Your task to perform on an android device: uninstall "eBay: The shopping marketplace" Image 0: 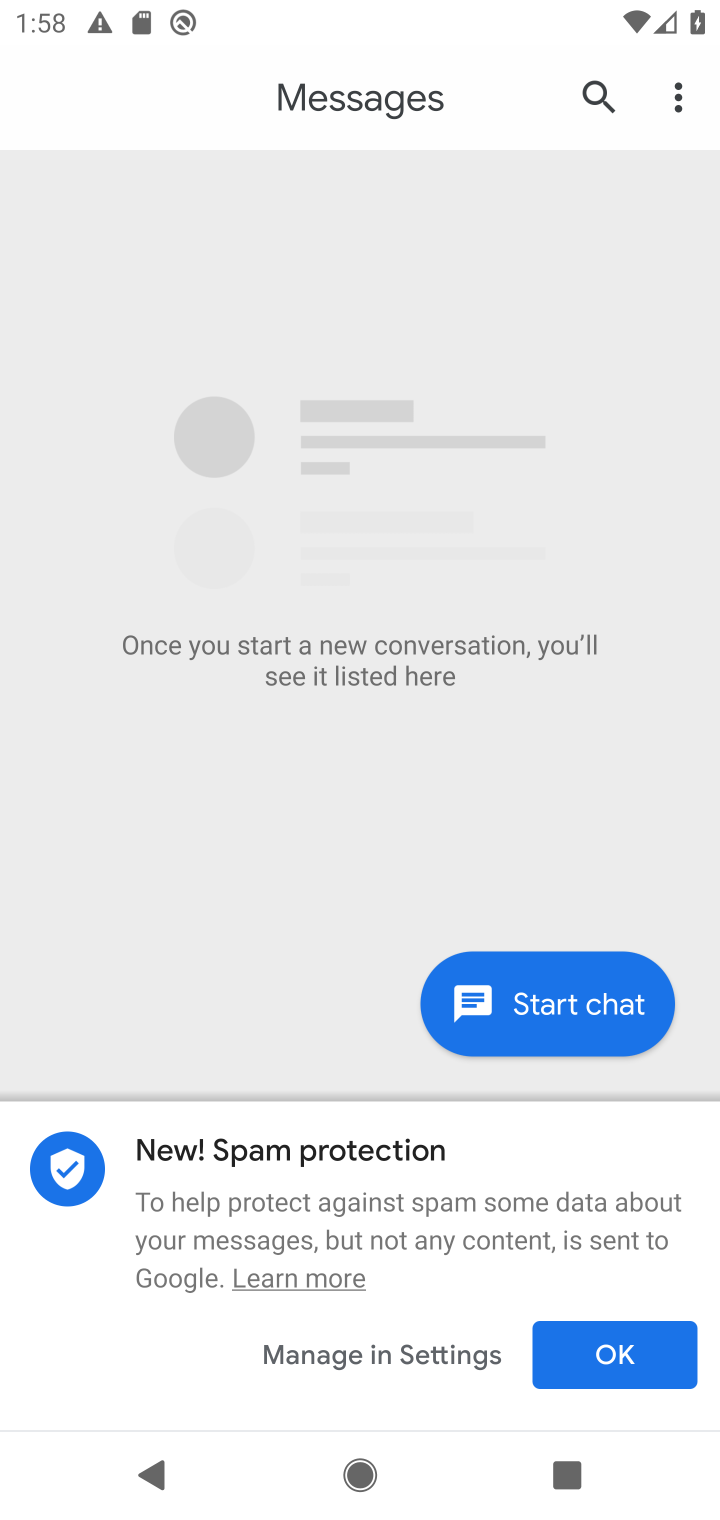
Step 0: press home button
Your task to perform on an android device: uninstall "eBay: The shopping marketplace" Image 1: 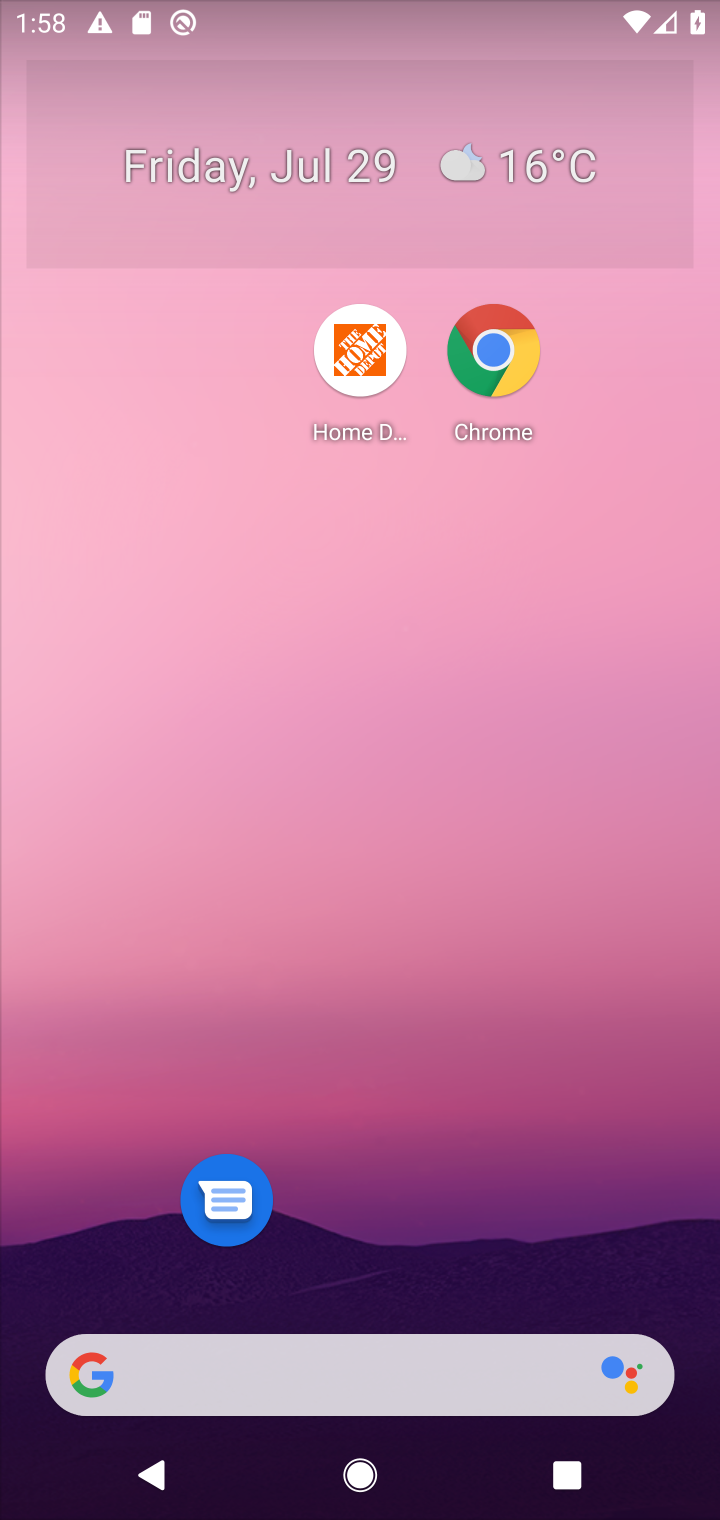
Step 1: drag from (480, 800) to (454, 265)
Your task to perform on an android device: uninstall "eBay: The shopping marketplace" Image 2: 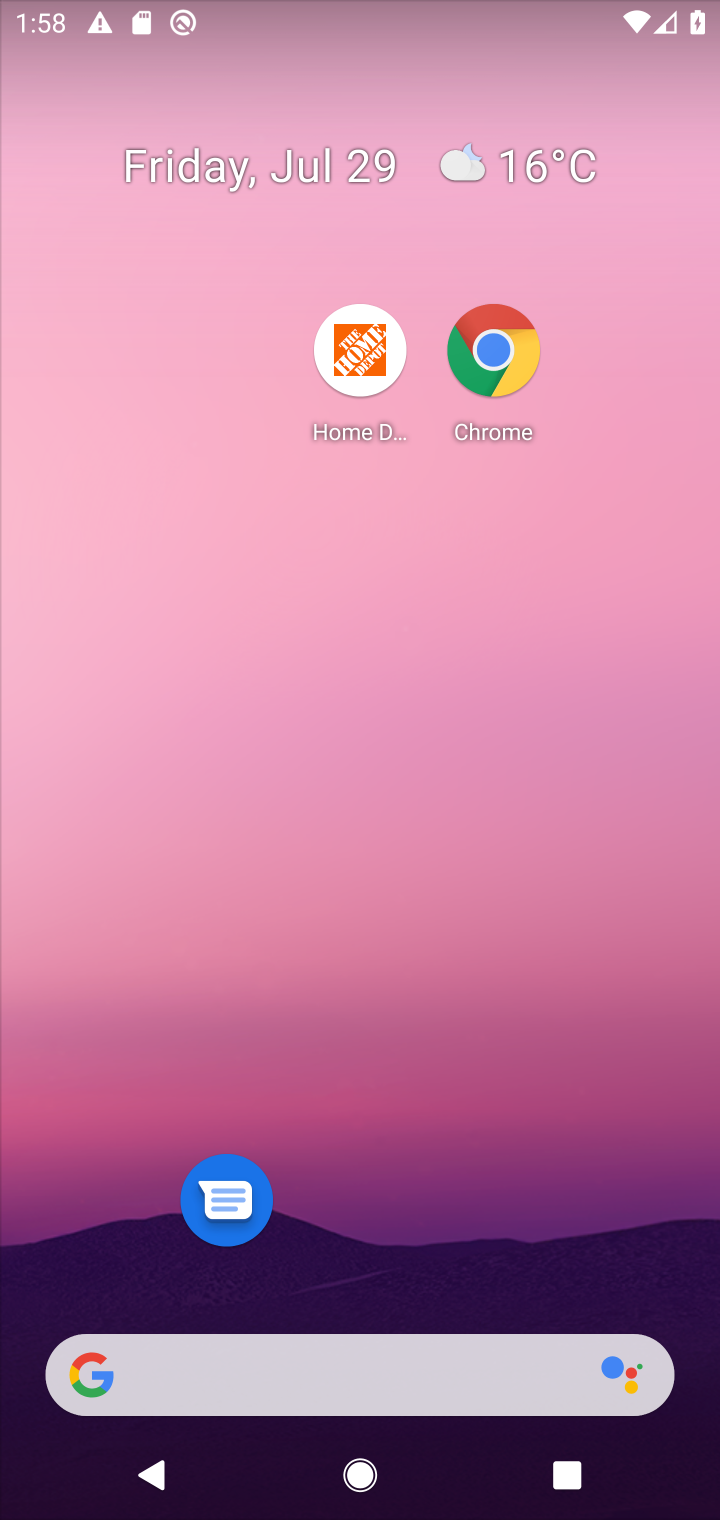
Step 2: drag from (415, 844) to (393, 148)
Your task to perform on an android device: uninstall "eBay: The shopping marketplace" Image 3: 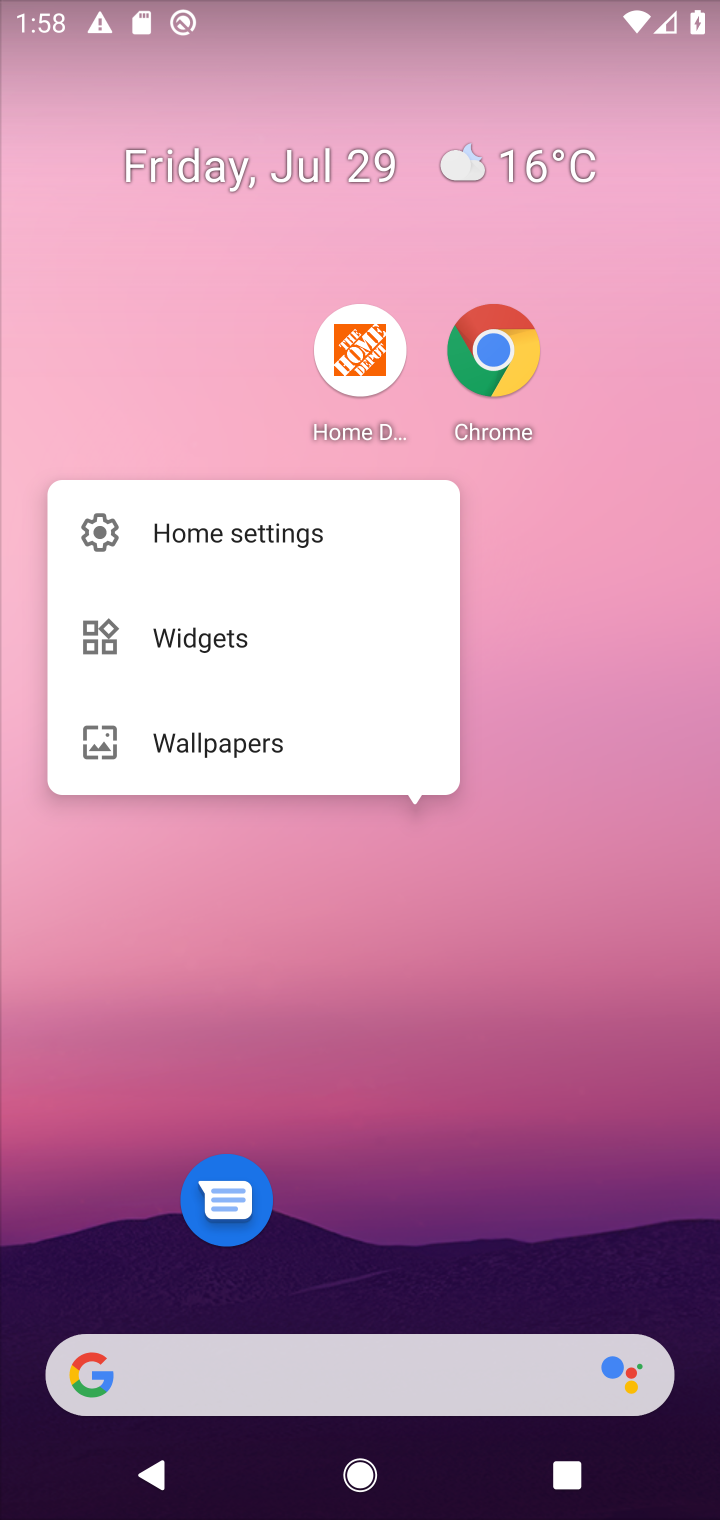
Step 3: click (546, 978)
Your task to perform on an android device: uninstall "eBay: The shopping marketplace" Image 4: 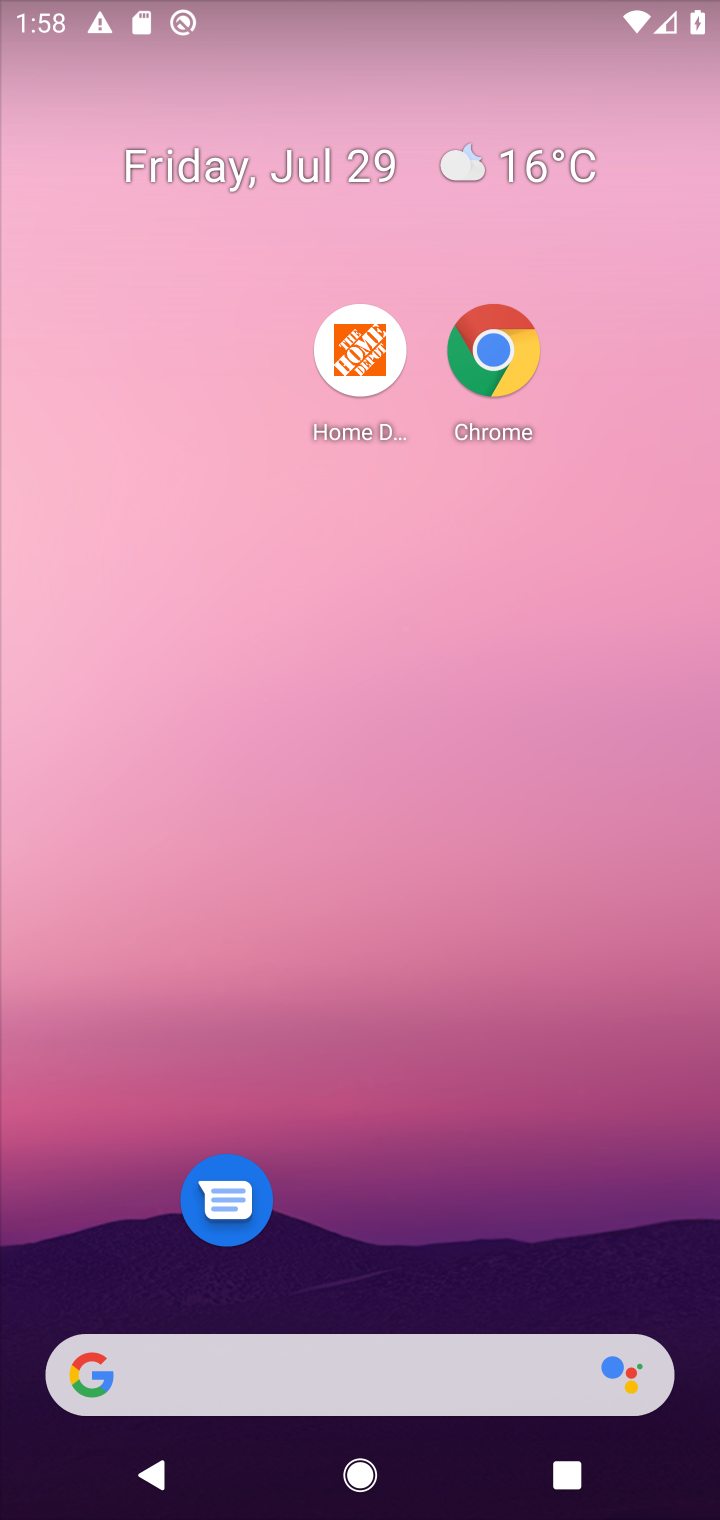
Step 4: drag from (538, 1170) to (439, 170)
Your task to perform on an android device: uninstall "eBay: The shopping marketplace" Image 5: 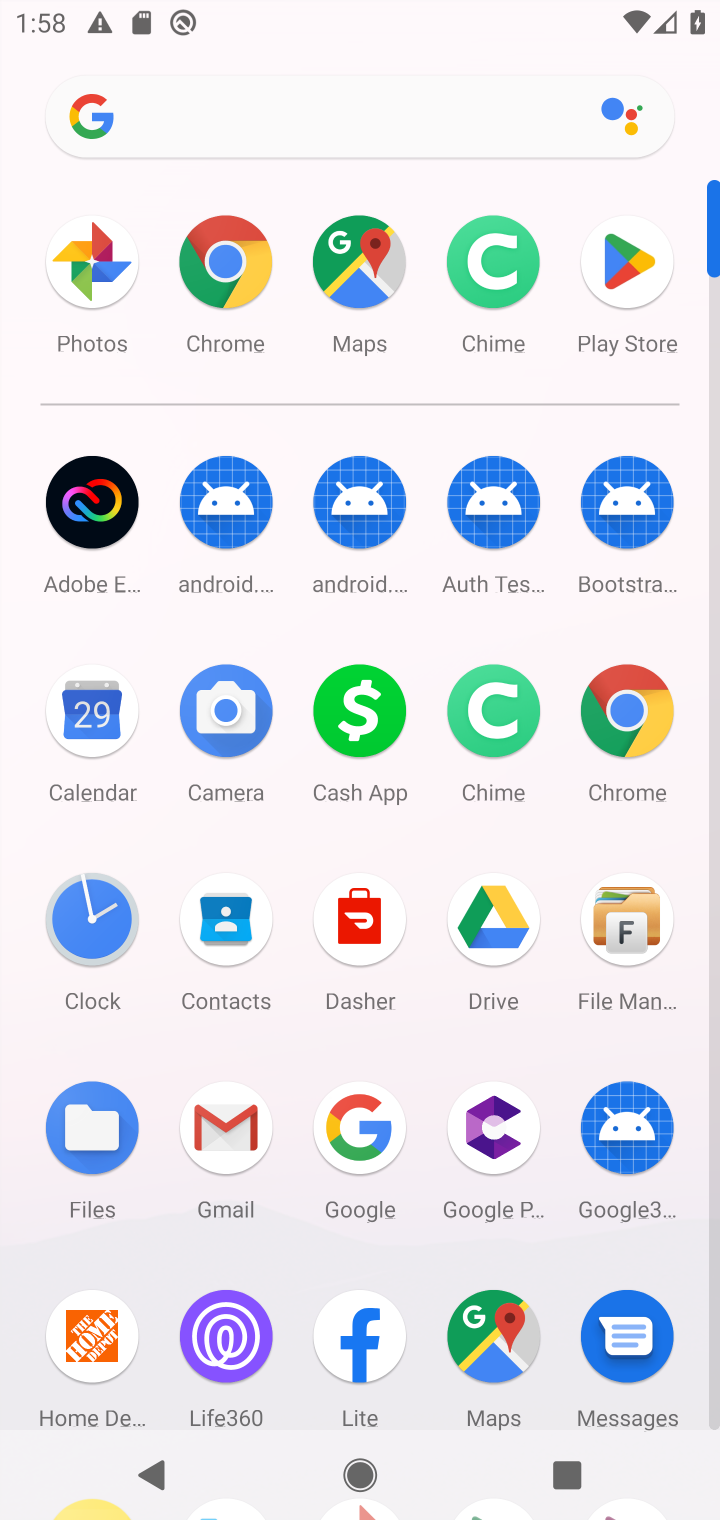
Step 5: click (636, 257)
Your task to perform on an android device: uninstall "eBay: The shopping marketplace" Image 6: 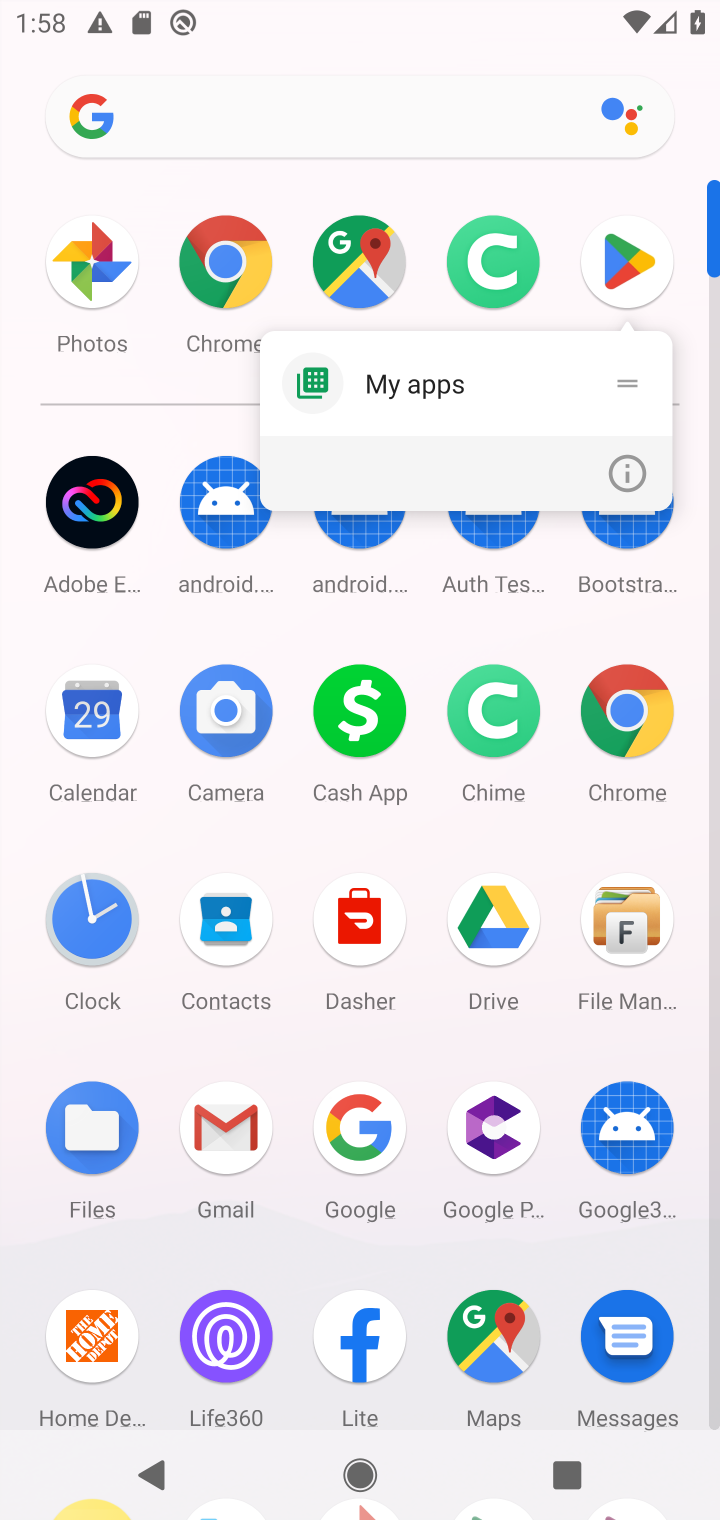
Step 6: click (608, 268)
Your task to perform on an android device: uninstall "eBay: The shopping marketplace" Image 7: 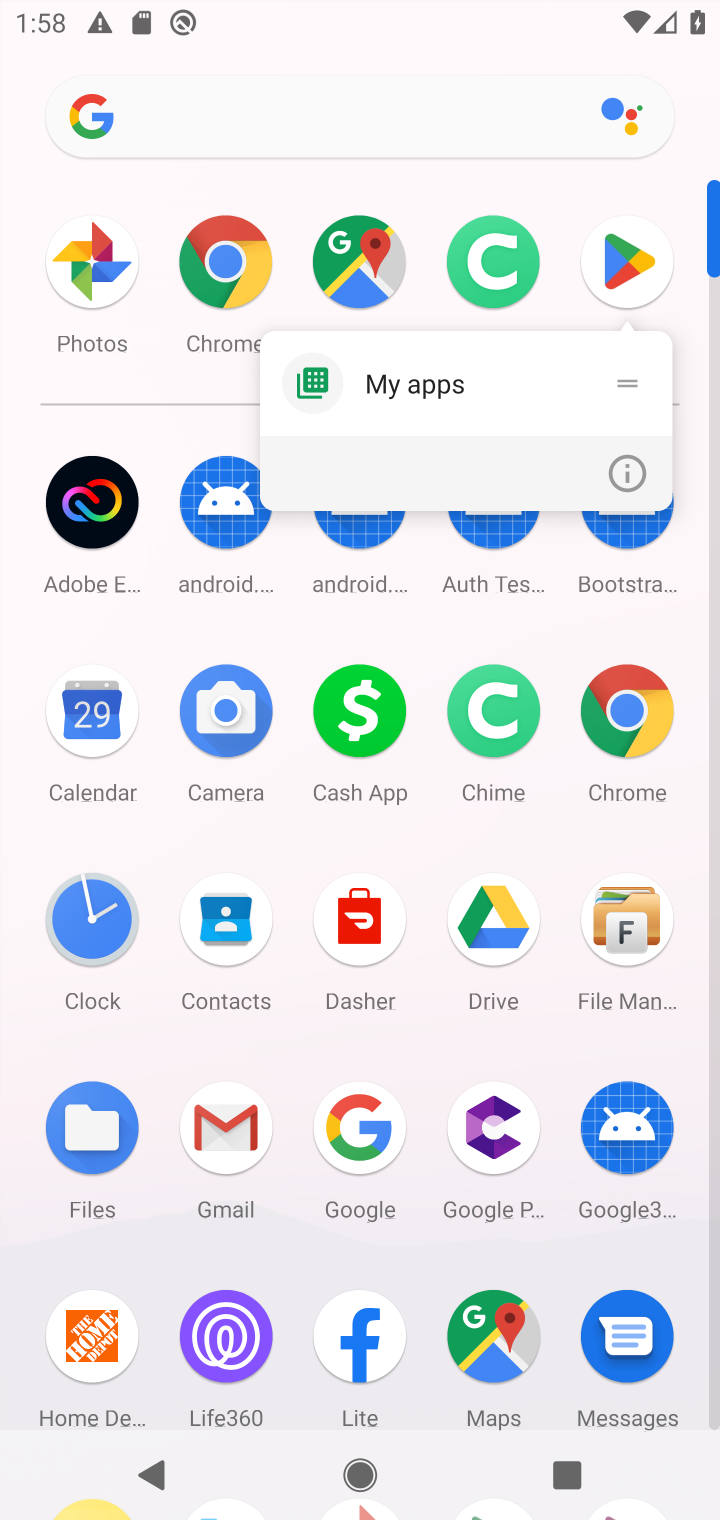
Step 7: click (616, 266)
Your task to perform on an android device: uninstall "eBay: The shopping marketplace" Image 8: 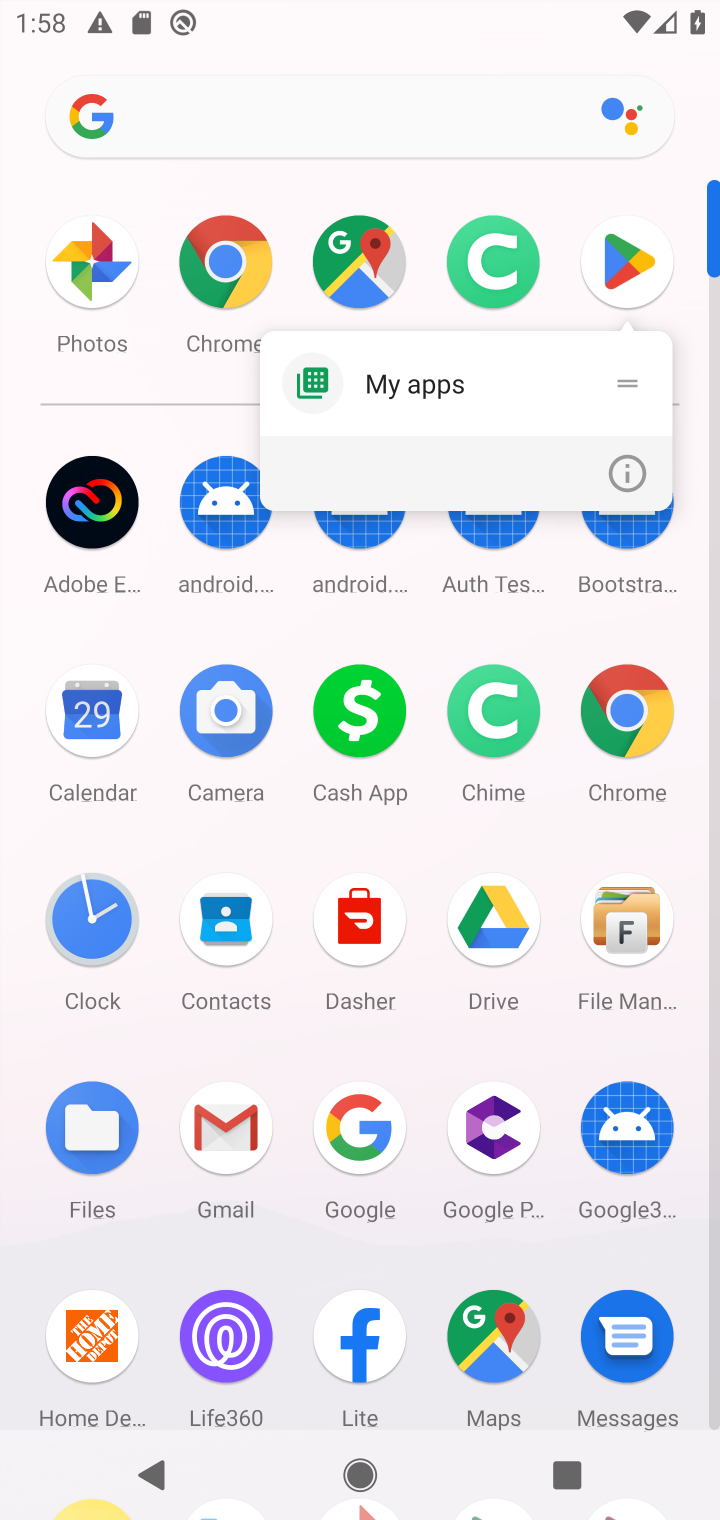
Step 8: click (625, 266)
Your task to perform on an android device: uninstall "eBay: The shopping marketplace" Image 9: 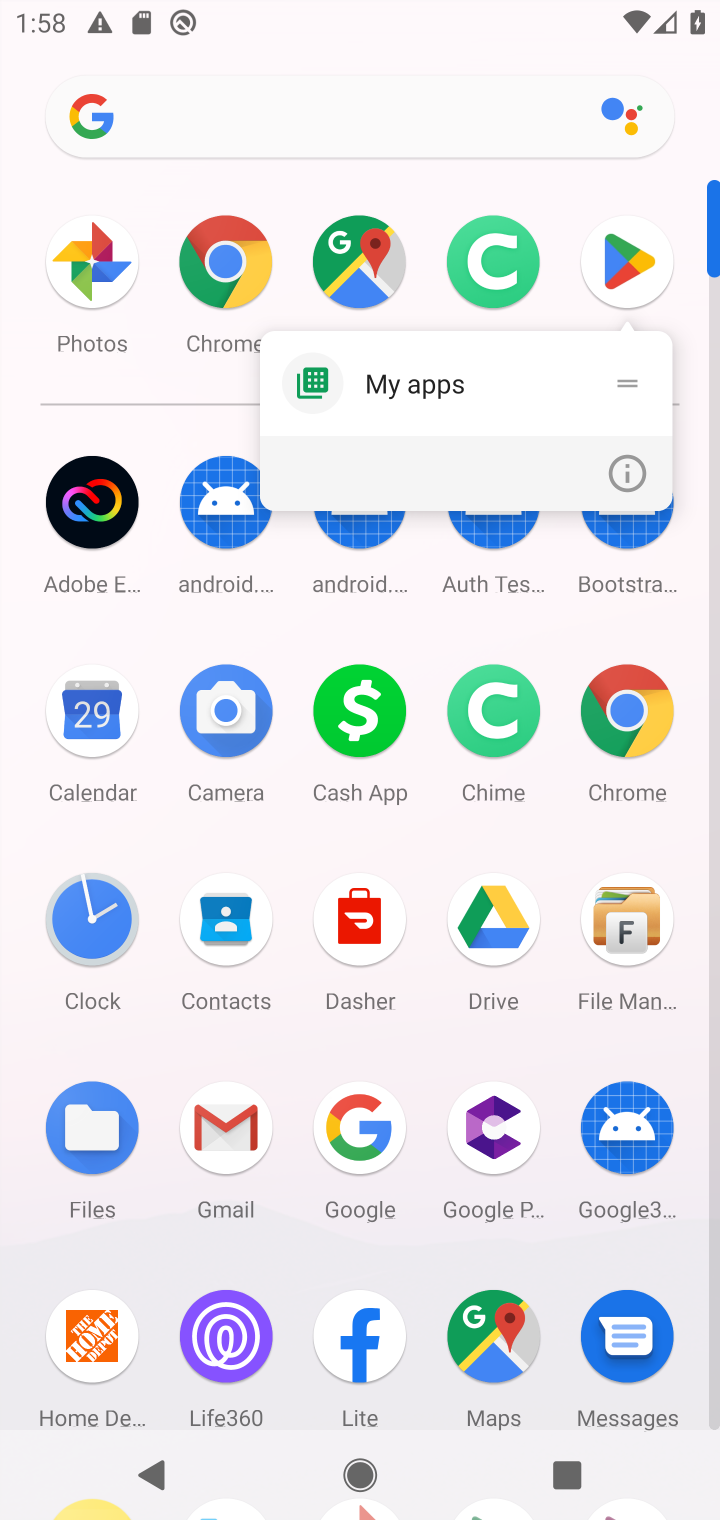
Step 9: click (629, 258)
Your task to perform on an android device: uninstall "eBay: The shopping marketplace" Image 10: 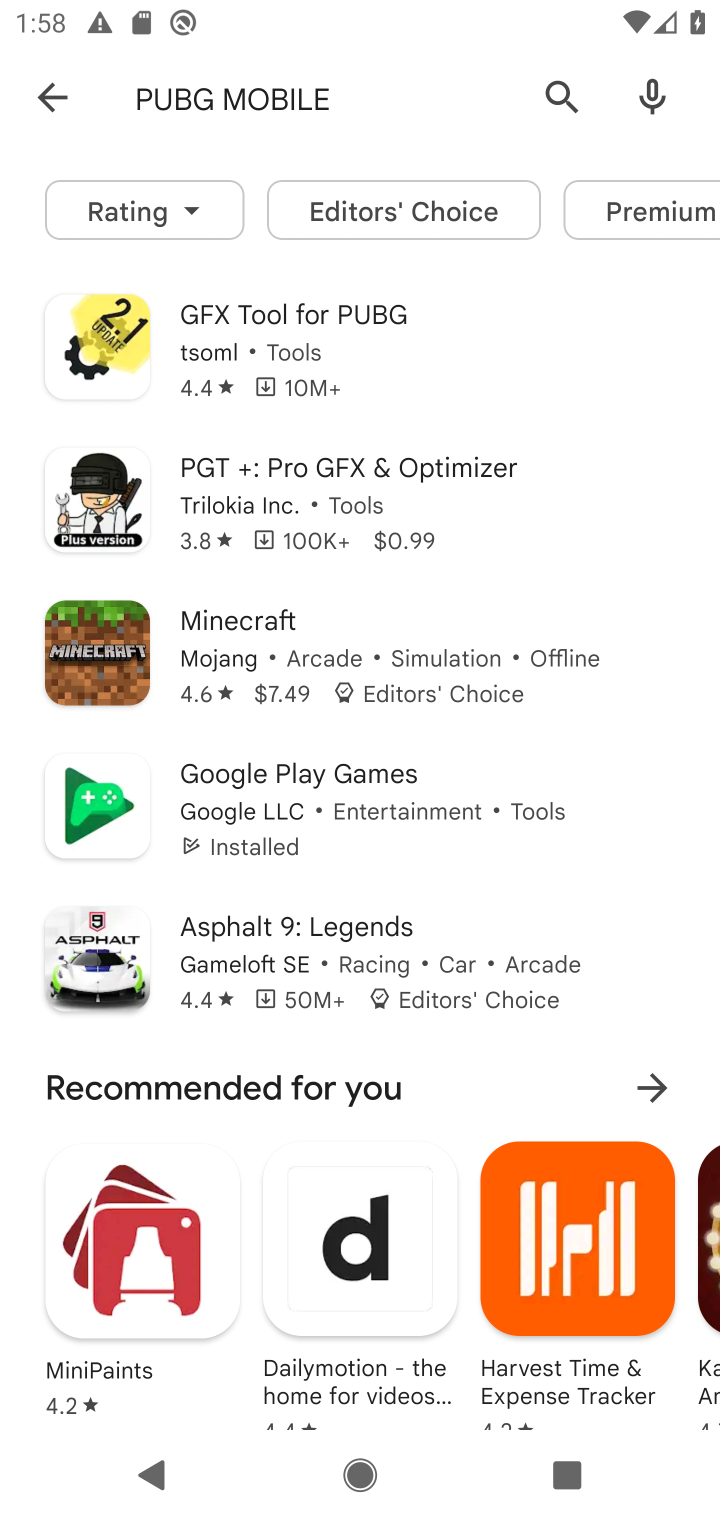
Step 10: click (343, 91)
Your task to perform on an android device: uninstall "eBay: The shopping marketplace" Image 11: 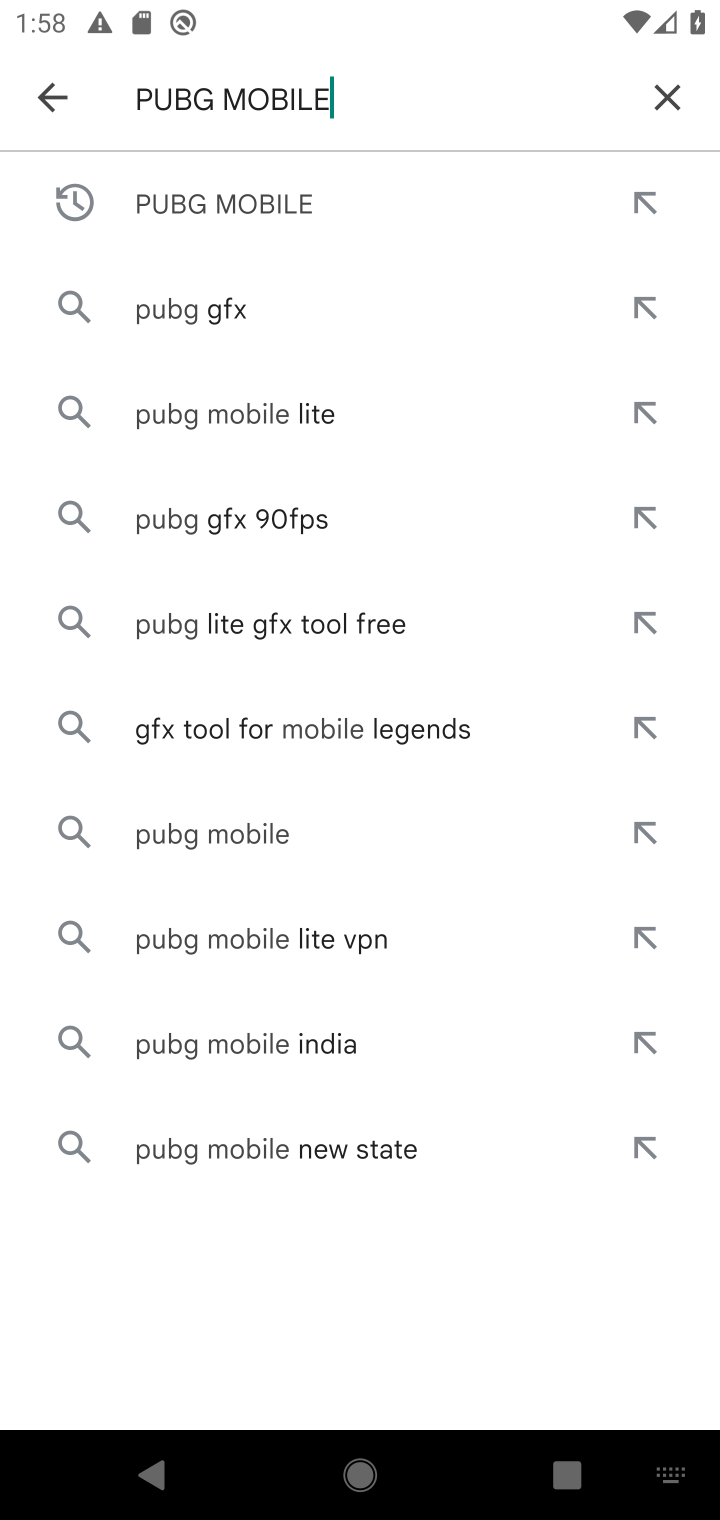
Step 11: click (662, 91)
Your task to perform on an android device: uninstall "eBay: The shopping marketplace" Image 12: 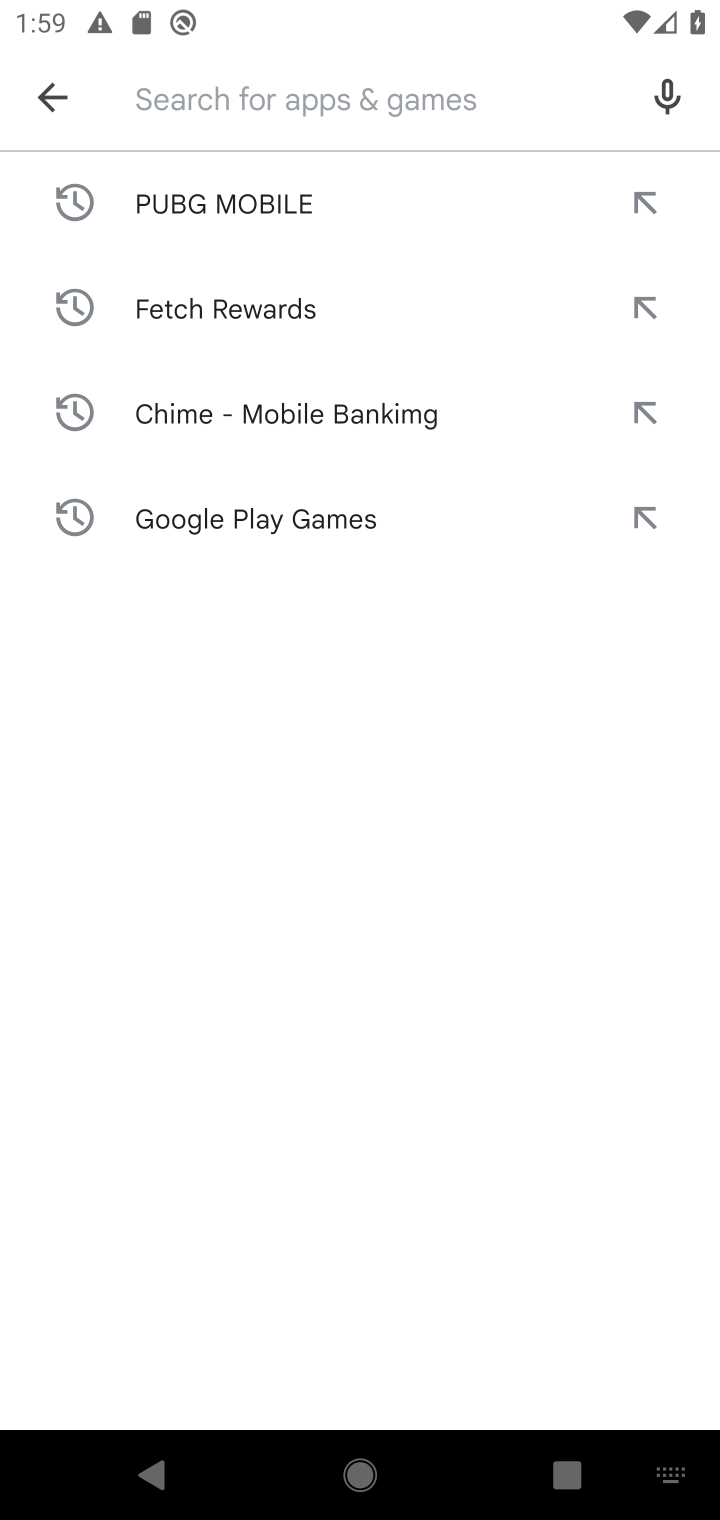
Step 12: type "eBay: shopping marketplace"
Your task to perform on an android device: uninstall "eBay: The shopping marketplace" Image 13: 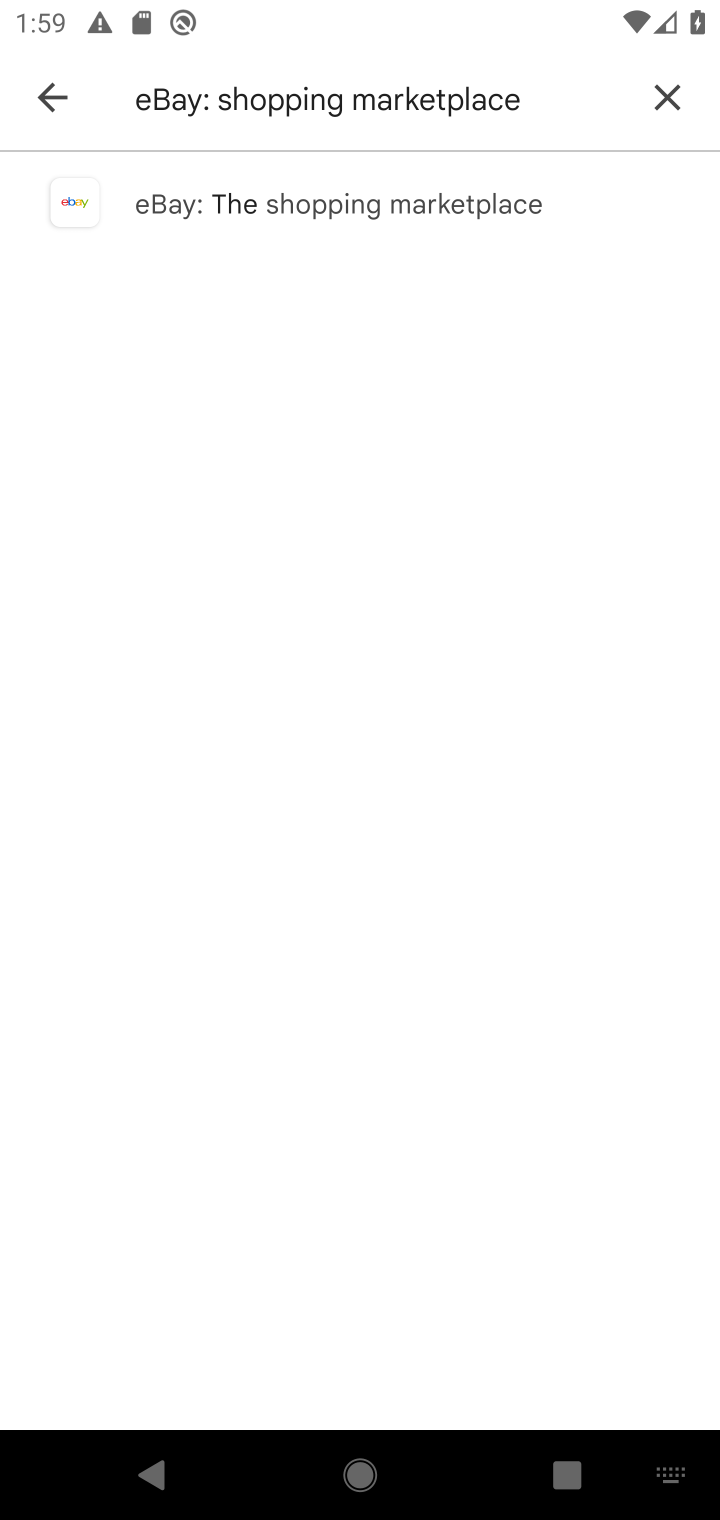
Step 13: press enter
Your task to perform on an android device: uninstall "eBay: The shopping marketplace" Image 14: 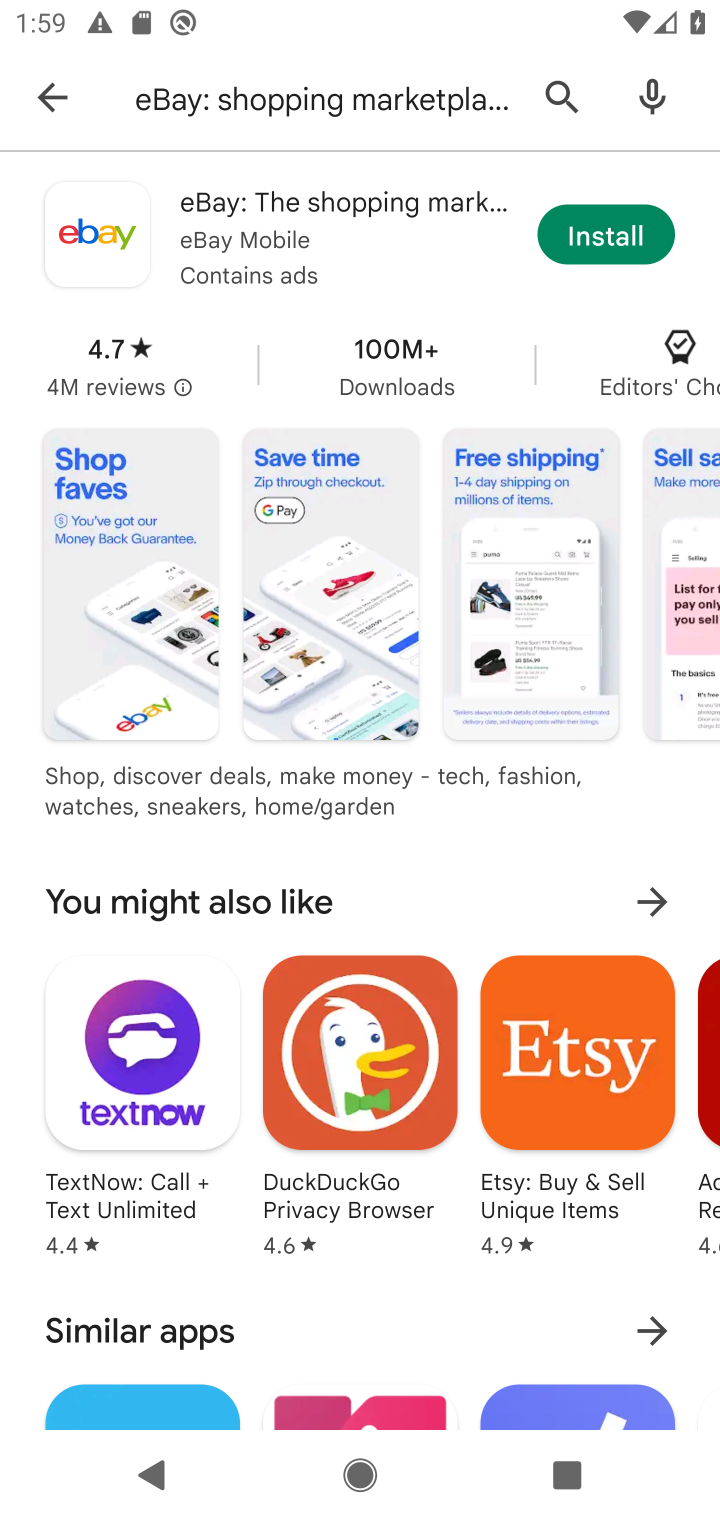
Step 14: click (365, 229)
Your task to perform on an android device: uninstall "eBay: The shopping marketplace" Image 15: 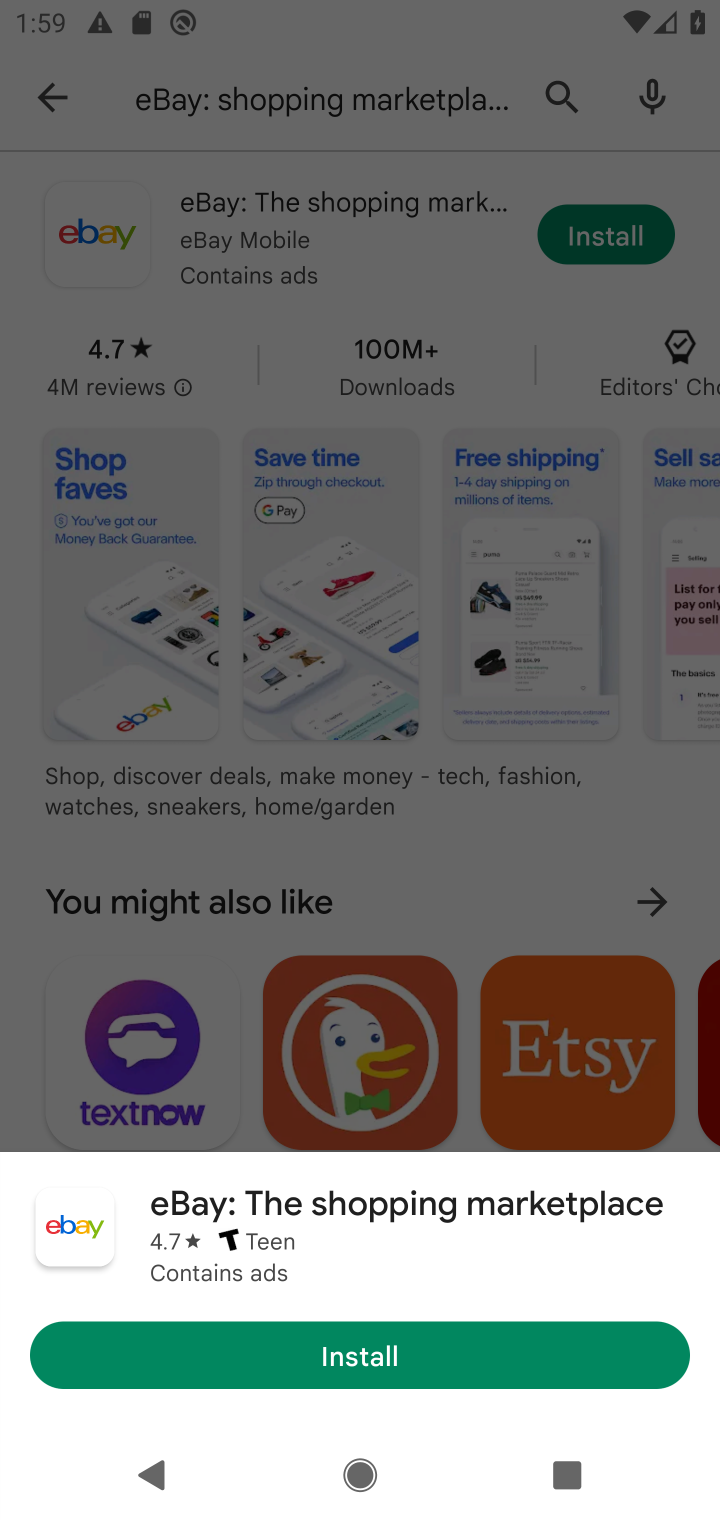
Step 15: click (396, 223)
Your task to perform on an android device: uninstall "eBay: The shopping marketplace" Image 16: 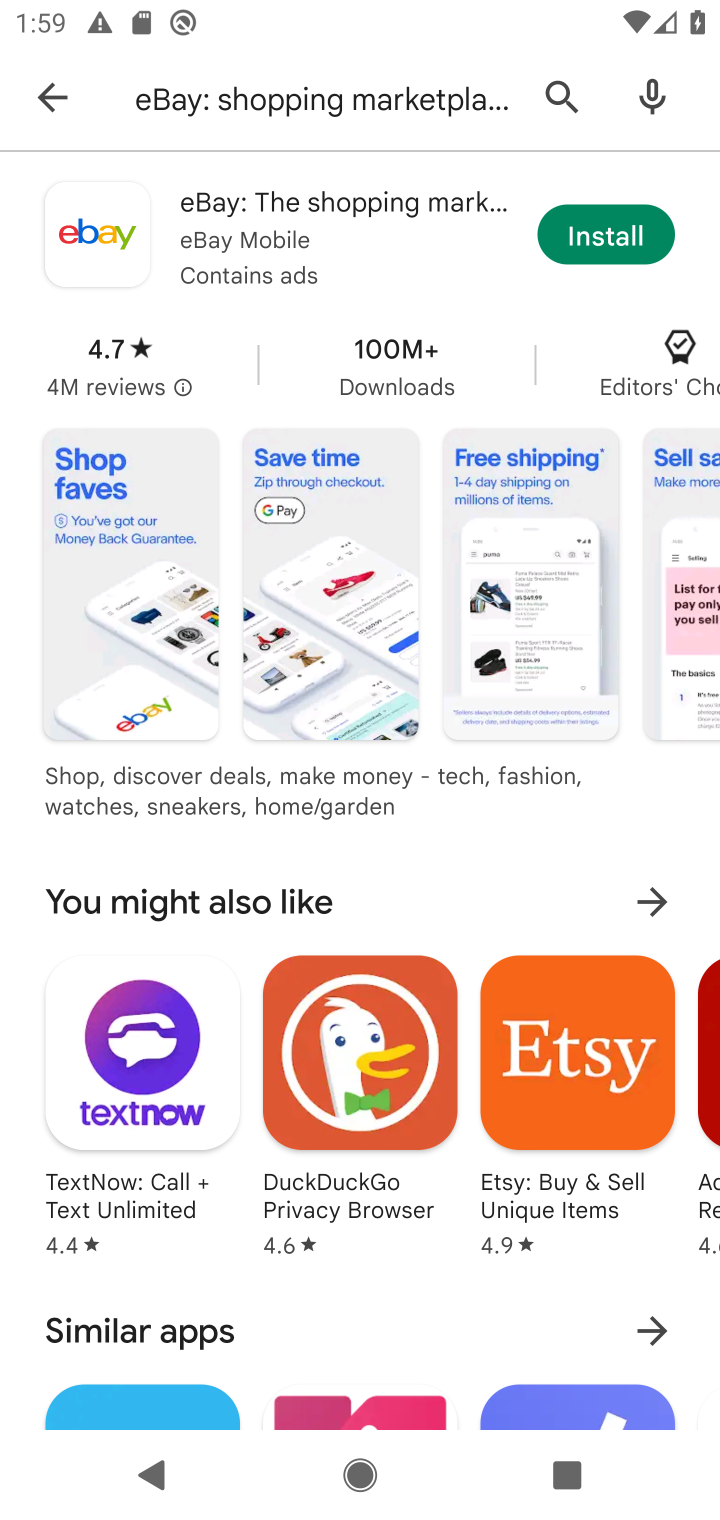
Step 16: task complete